Your task to perform on an android device: allow notifications from all sites in the chrome app Image 0: 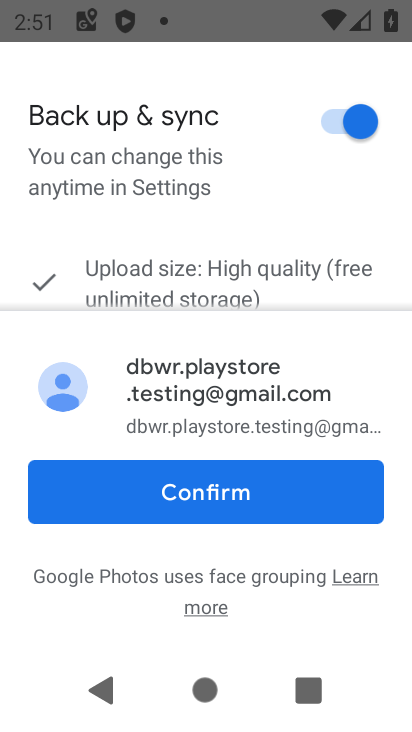
Step 0: press home button
Your task to perform on an android device: allow notifications from all sites in the chrome app Image 1: 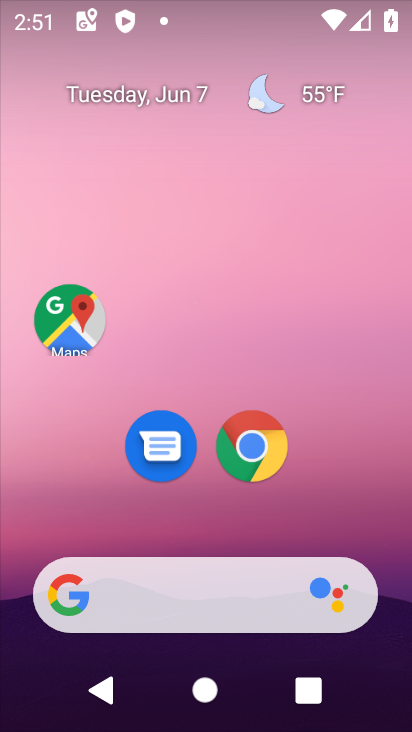
Step 1: click (264, 436)
Your task to perform on an android device: allow notifications from all sites in the chrome app Image 2: 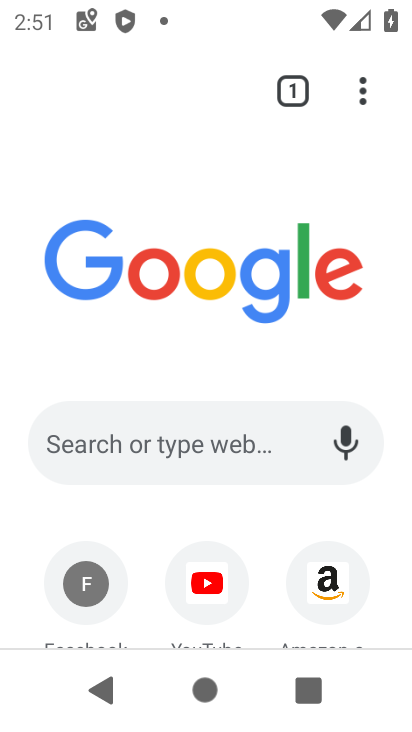
Step 2: click (355, 92)
Your task to perform on an android device: allow notifications from all sites in the chrome app Image 3: 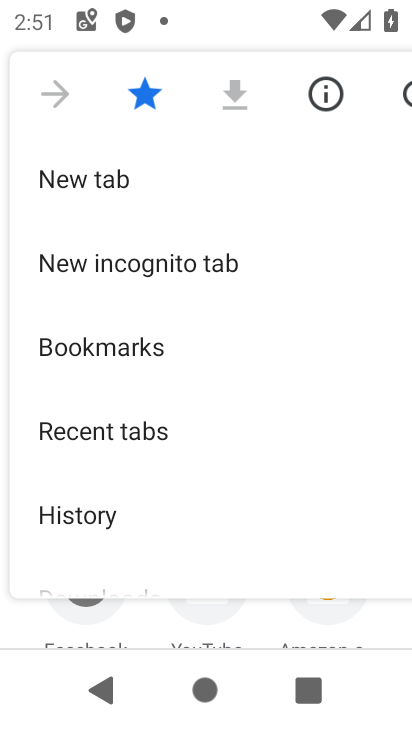
Step 3: drag from (138, 483) to (225, 89)
Your task to perform on an android device: allow notifications from all sites in the chrome app Image 4: 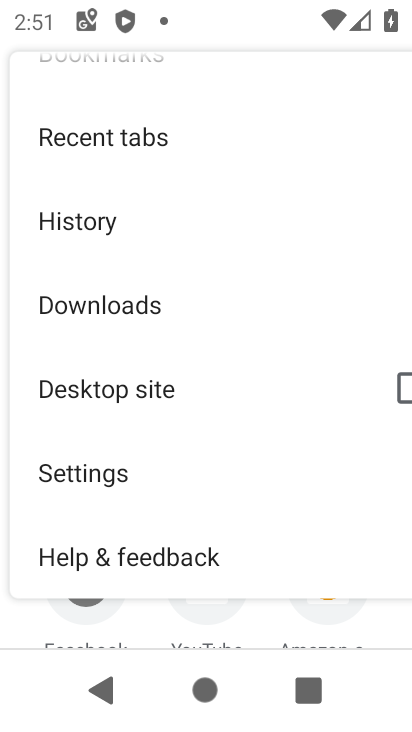
Step 4: click (130, 480)
Your task to perform on an android device: allow notifications from all sites in the chrome app Image 5: 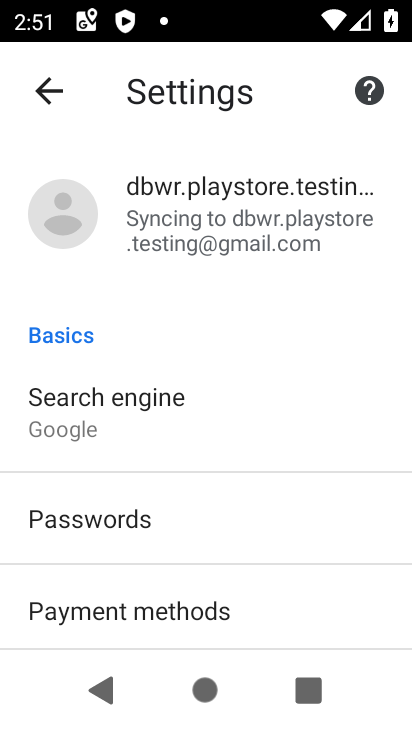
Step 5: drag from (158, 534) to (205, 160)
Your task to perform on an android device: allow notifications from all sites in the chrome app Image 6: 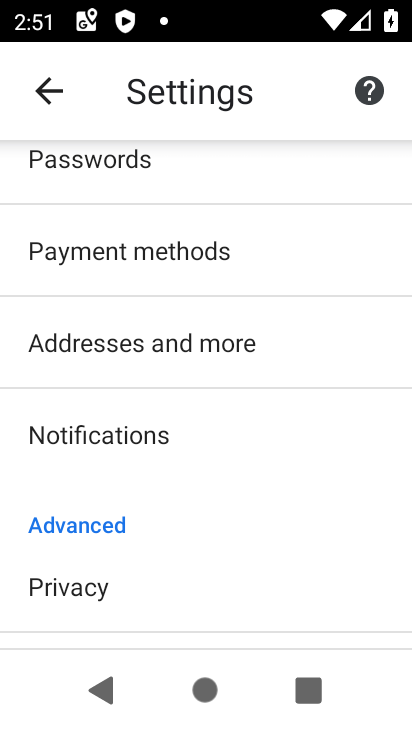
Step 6: drag from (121, 590) to (123, 470)
Your task to perform on an android device: allow notifications from all sites in the chrome app Image 7: 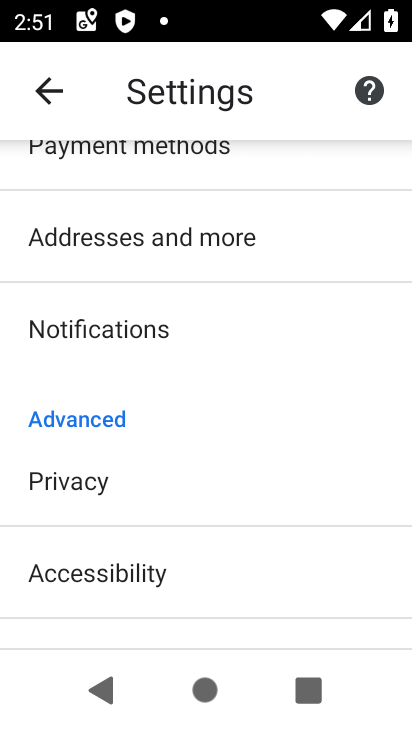
Step 7: click (105, 336)
Your task to perform on an android device: allow notifications from all sites in the chrome app Image 8: 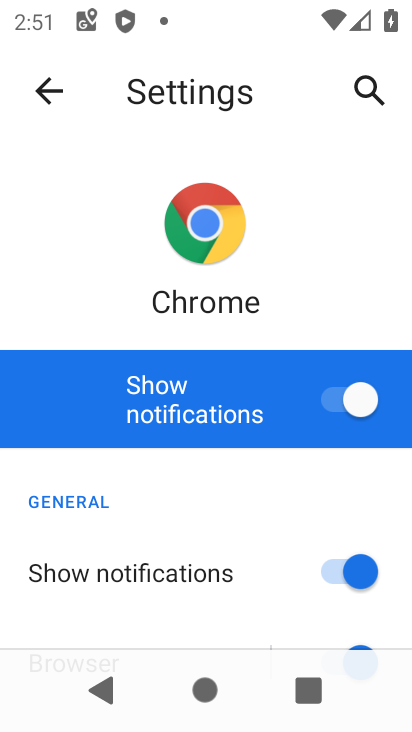
Step 8: task complete